Your task to perform on an android device: Open calendar and show me the fourth week of next month Image 0: 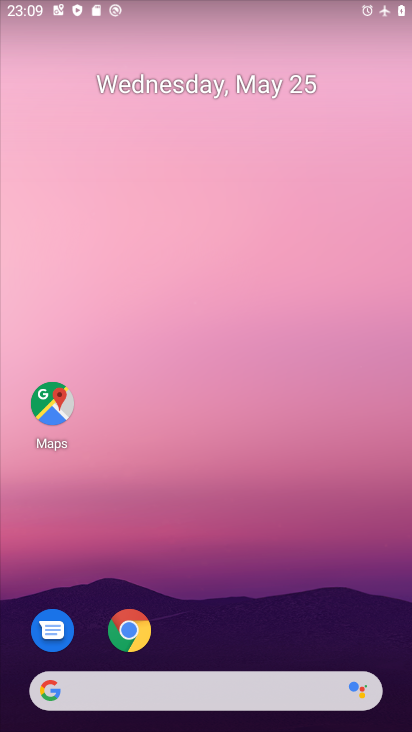
Step 0: drag from (236, 623) to (255, 138)
Your task to perform on an android device: Open calendar and show me the fourth week of next month Image 1: 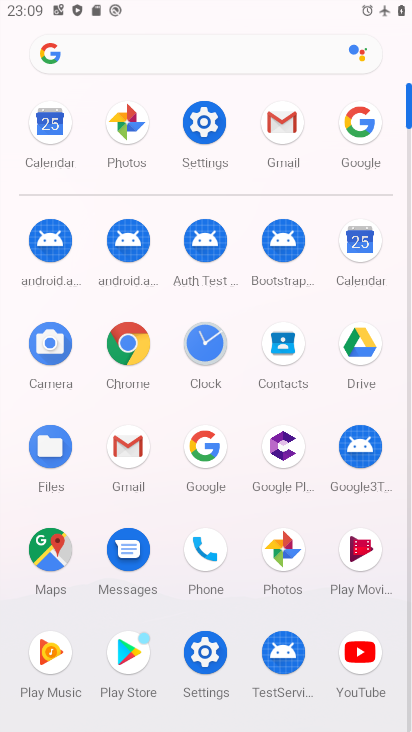
Step 1: click (344, 250)
Your task to perform on an android device: Open calendar and show me the fourth week of next month Image 2: 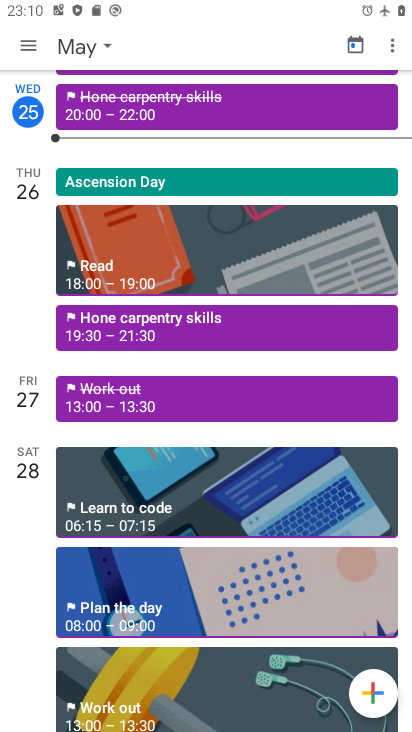
Step 2: click (108, 38)
Your task to perform on an android device: Open calendar and show me the fourth week of next month Image 3: 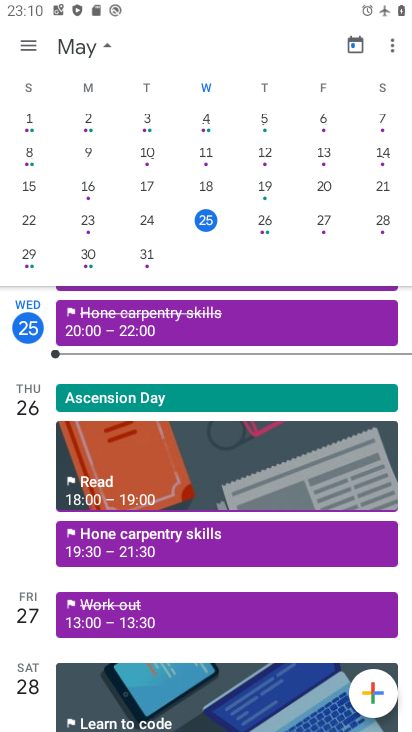
Step 3: drag from (346, 188) to (70, 152)
Your task to perform on an android device: Open calendar and show me the fourth week of next month Image 4: 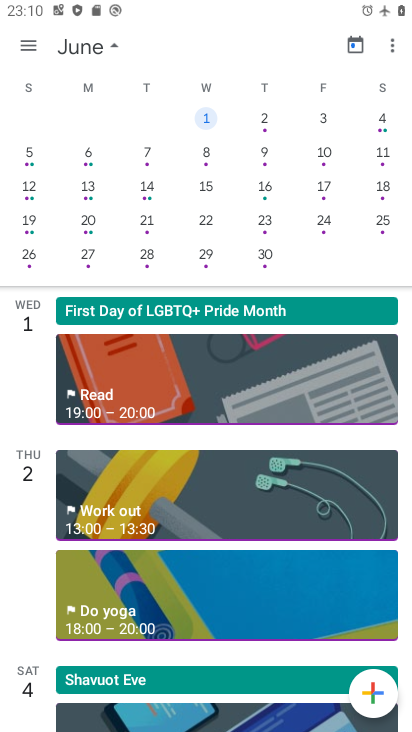
Step 4: click (25, 214)
Your task to perform on an android device: Open calendar and show me the fourth week of next month Image 5: 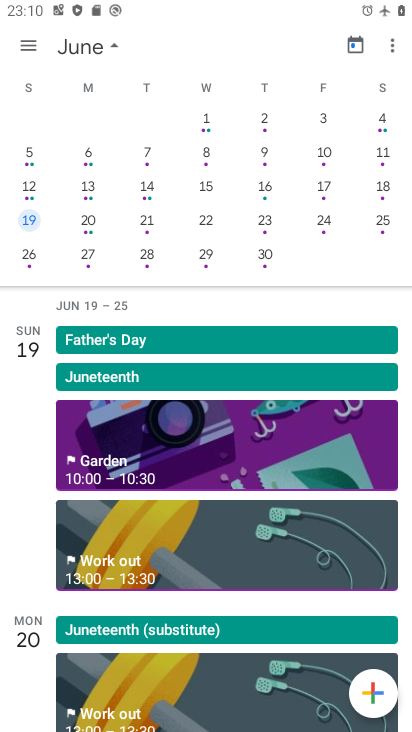
Step 5: task complete